Your task to perform on an android device: Open Yahoo.com Image 0: 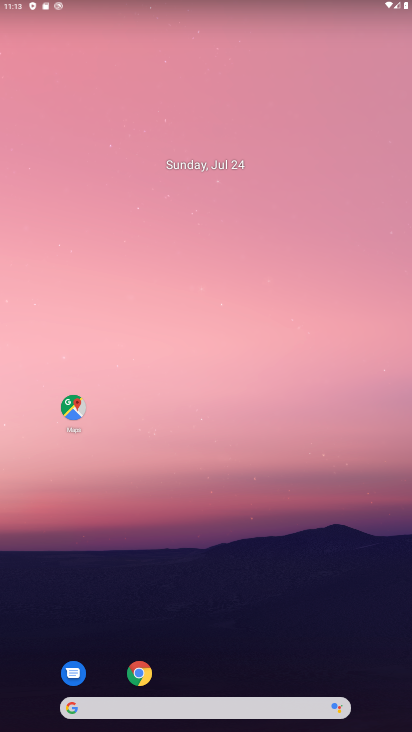
Step 0: drag from (296, 614) to (349, 74)
Your task to perform on an android device: Open Yahoo.com Image 1: 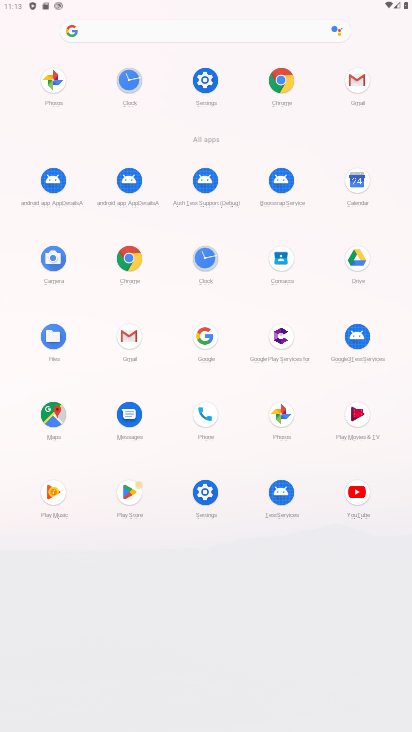
Step 1: click (289, 80)
Your task to perform on an android device: Open Yahoo.com Image 2: 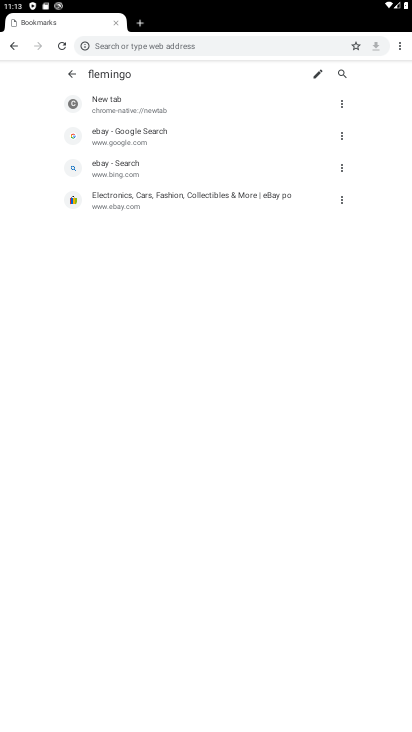
Step 2: click (217, 45)
Your task to perform on an android device: Open Yahoo.com Image 3: 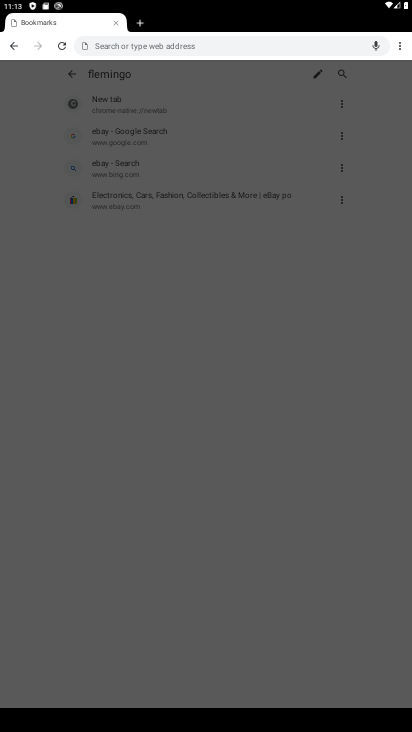
Step 3: type "yahoo.com"
Your task to perform on an android device: Open Yahoo.com Image 4: 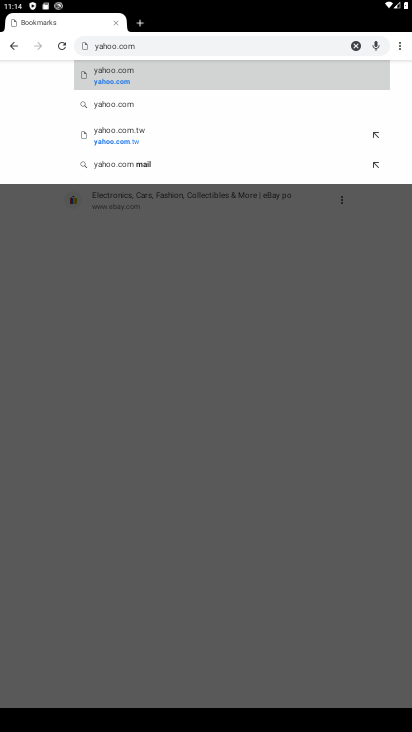
Step 4: click (108, 68)
Your task to perform on an android device: Open Yahoo.com Image 5: 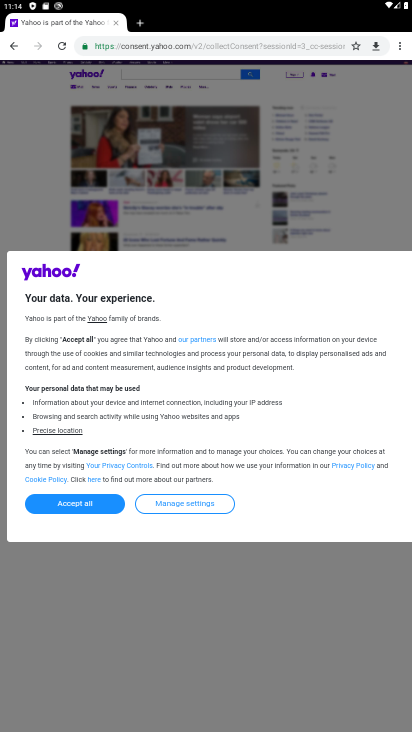
Step 5: task complete